Your task to perform on an android device: Search for Italian restaurants on Maps Image 0: 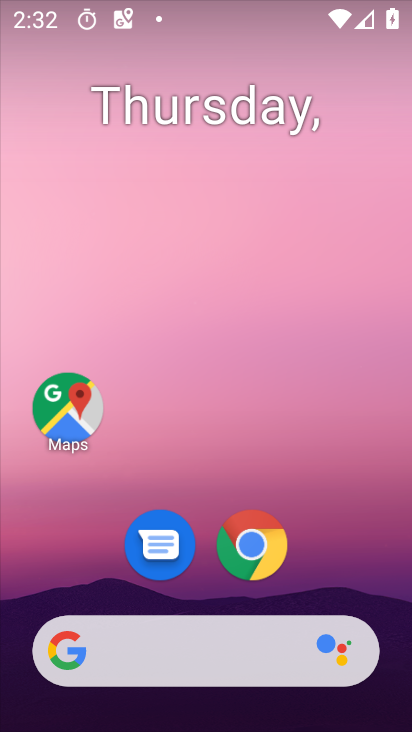
Step 0: drag from (214, 722) to (208, 37)
Your task to perform on an android device: Search for Italian restaurants on Maps Image 1: 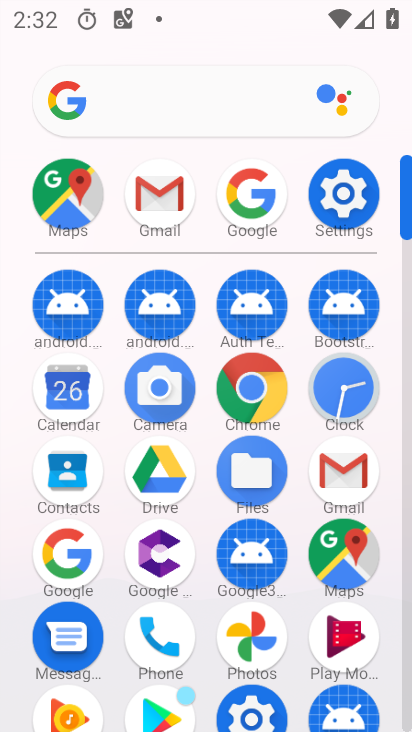
Step 1: click (346, 544)
Your task to perform on an android device: Search for Italian restaurants on Maps Image 2: 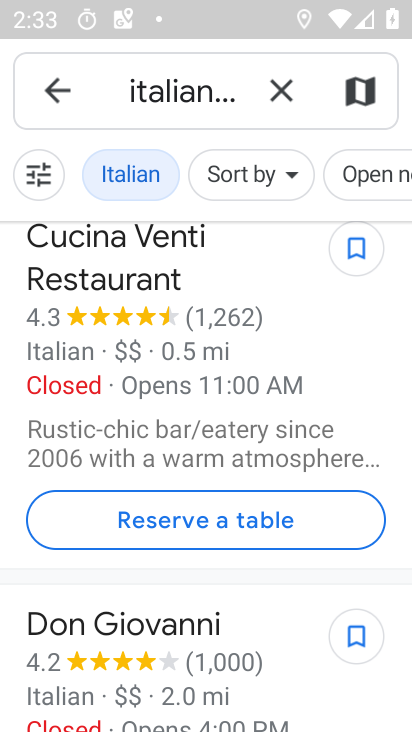
Step 2: task complete